Your task to perform on an android device: Open display settings Image 0: 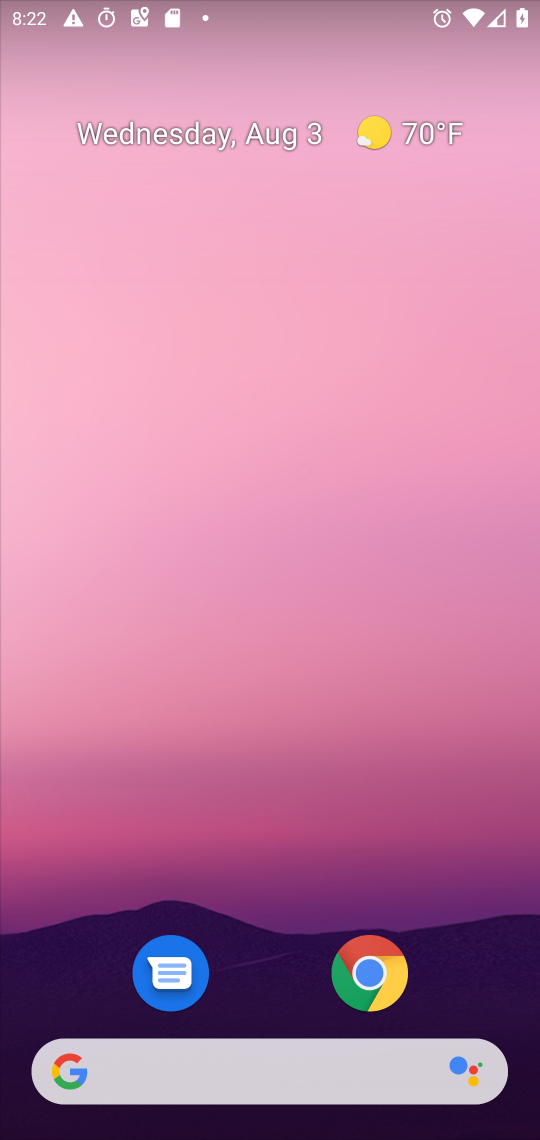
Step 0: press home button
Your task to perform on an android device: Open display settings Image 1: 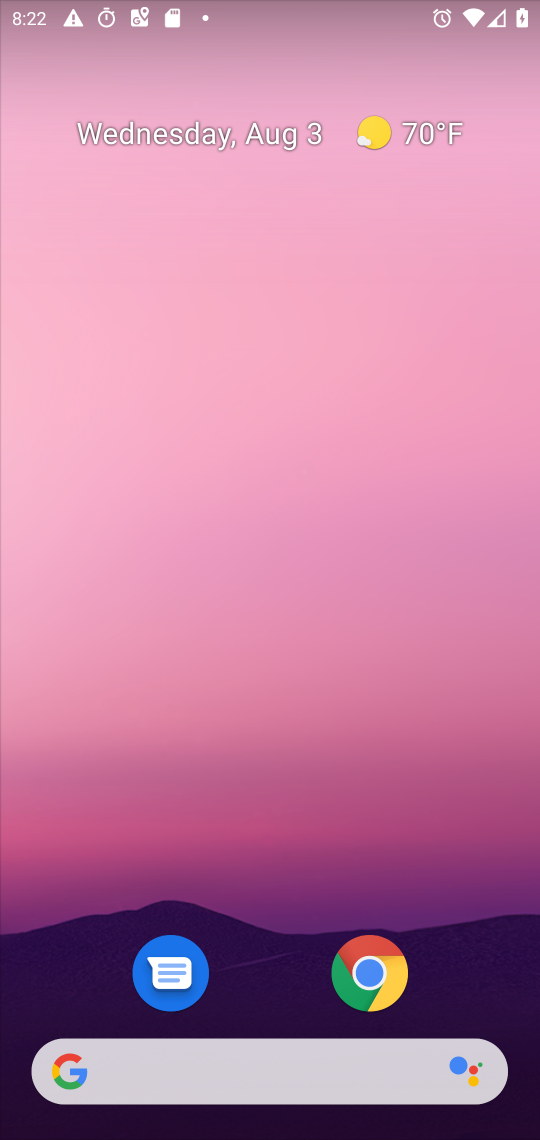
Step 1: drag from (275, 996) to (299, 52)
Your task to perform on an android device: Open display settings Image 2: 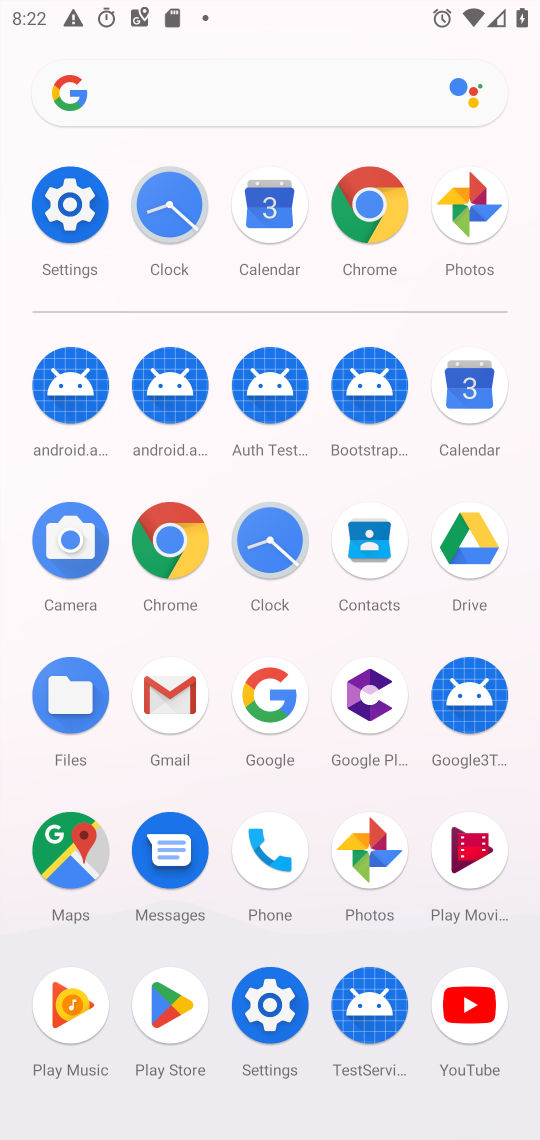
Step 2: click (63, 189)
Your task to perform on an android device: Open display settings Image 3: 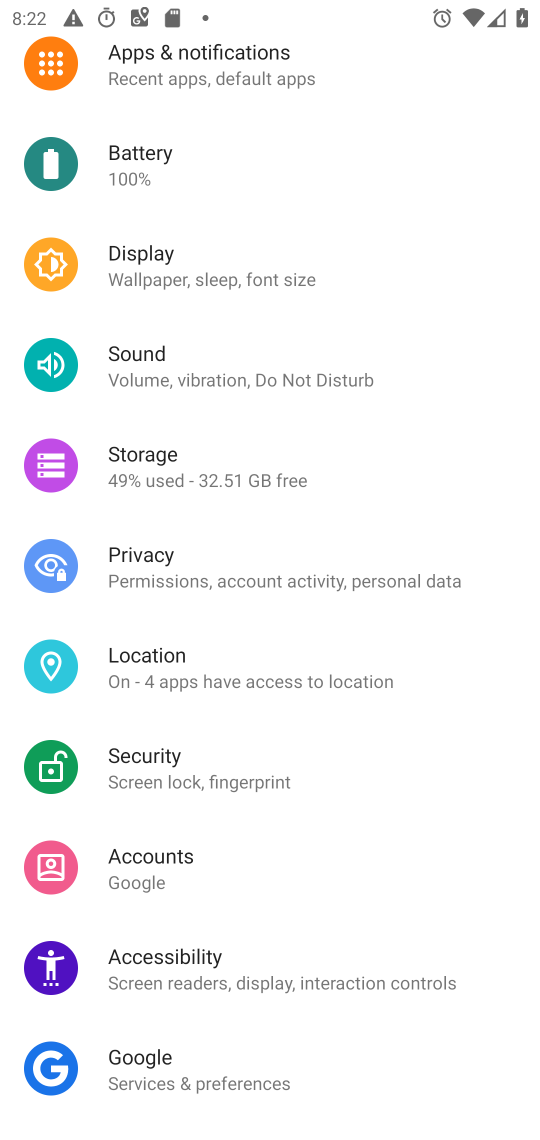
Step 3: click (191, 252)
Your task to perform on an android device: Open display settings Image 4: 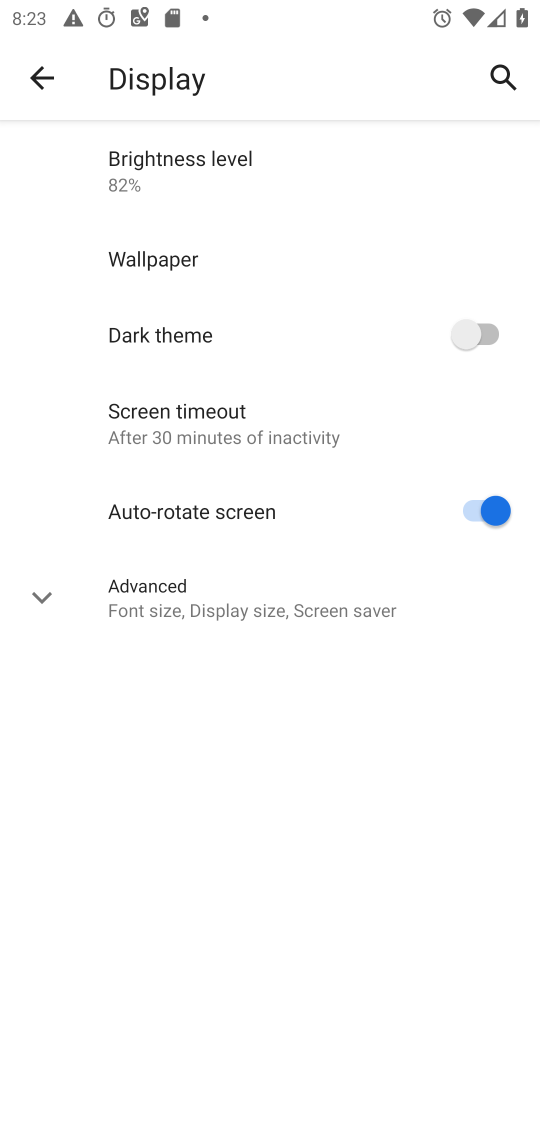
Step 4: click (42, 582)
Your task to perform on an android device: Open display settings Image 5: 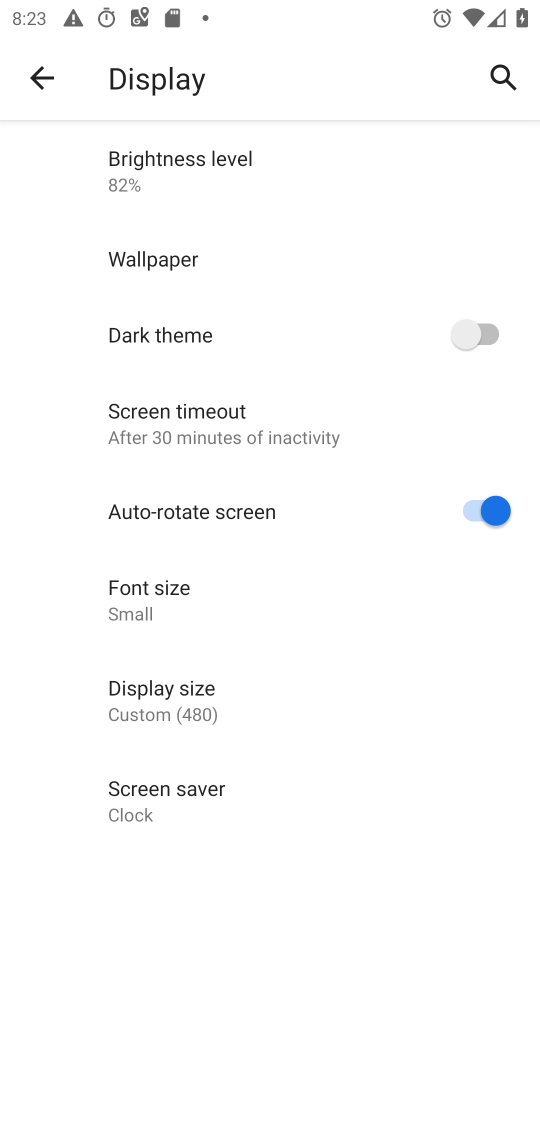
Step 5: task complete